Your task to perform on an android device: Show me the alarms in the clock app Image 0: 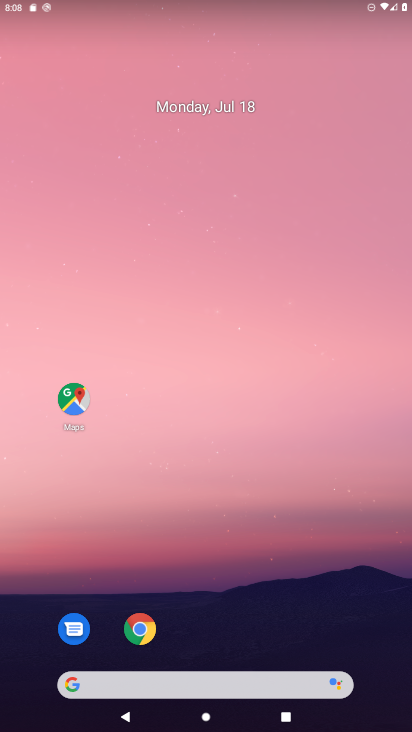
Step 0: drag from (196, 650) to (177, 55)
Your task to perform on an android device: Show me the alarms in the clock app Image 1: 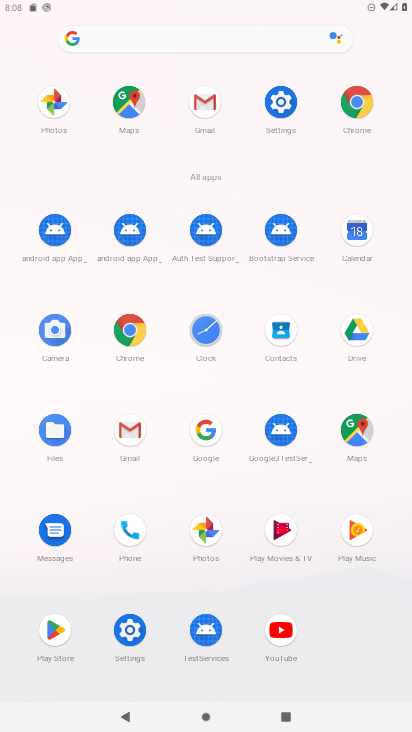
Step 1: click (204, 323)
Your task to perform on an android device: Show me the alarms in the clock app Image 2: 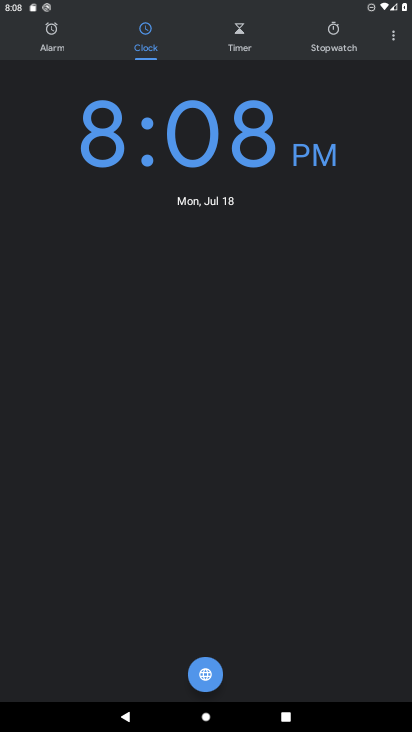
Step 2: click (46, 30)
Your task to perform on an android device: Show me the alarms in the clock app Image 3: 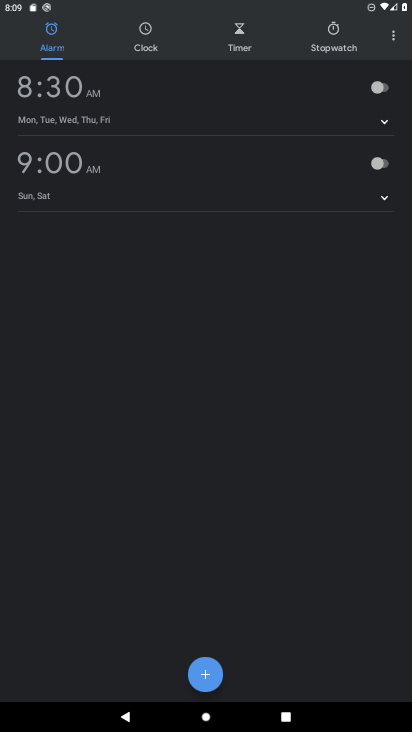
Step 3: task complete